Your task to perform on an android device: open a bookmark in the chrome app Image 0: 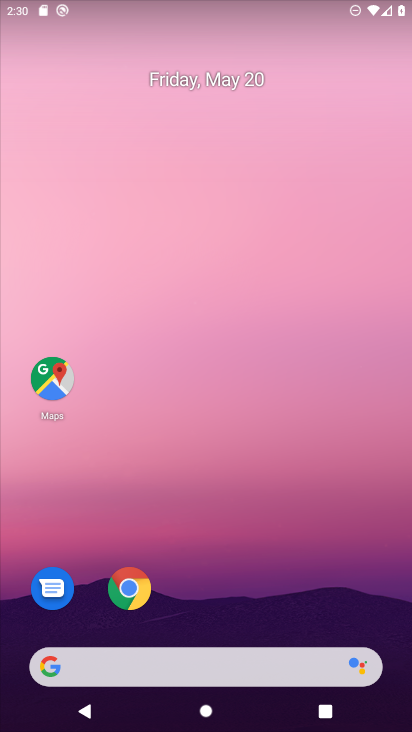
Step 0: click (132, 590)
Your task to perform on an android device: open a bookmark in the chrome app Image 1: 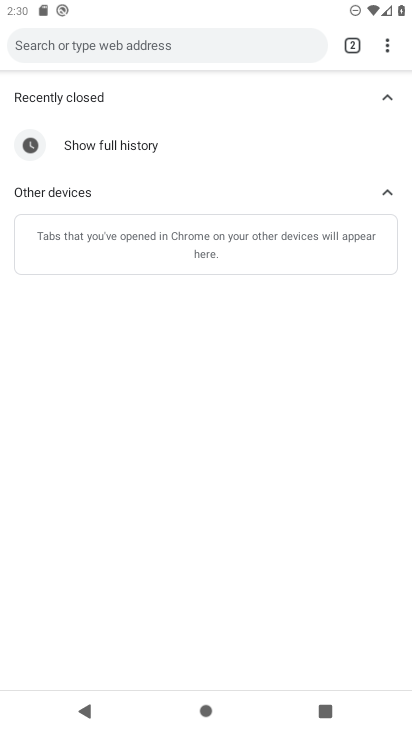
Step 1: click (386, 49)
Your task to perform on an android device: open a bookmark in the chrome app Image 2: 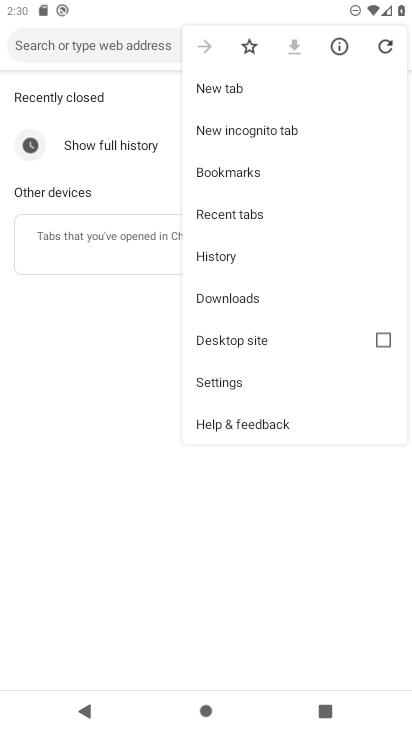
Step 2: click (226, 167)
Your task to perform on an android device: open a bookmark in the chrome app Image 3: 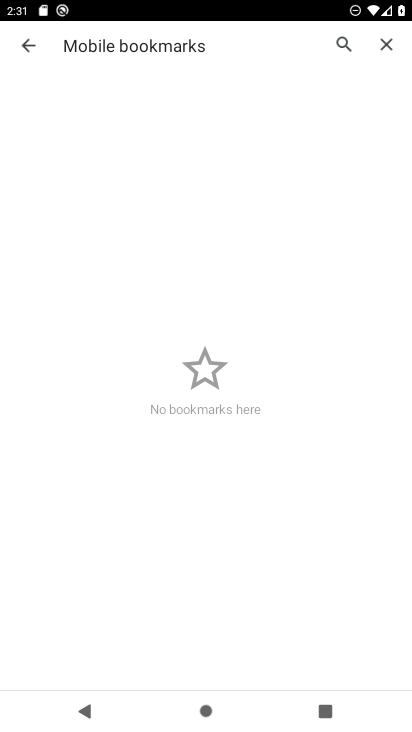
Step 3: task complete